Your task to perform on an android device: check out phone information Image 0: 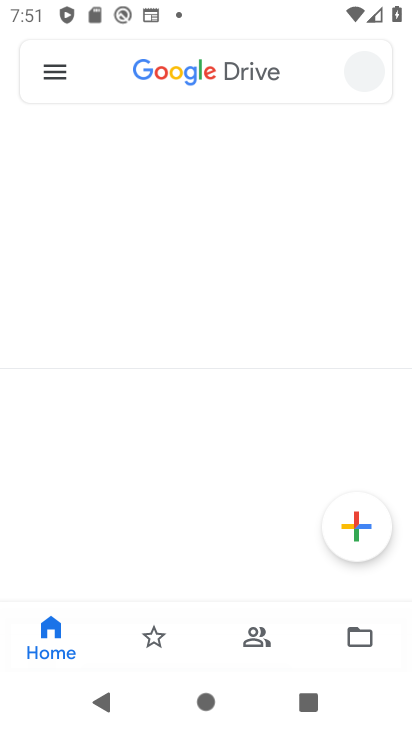
Step 0: click (248, 525)
Your task to perform on an android device: check out phone information Image 1: 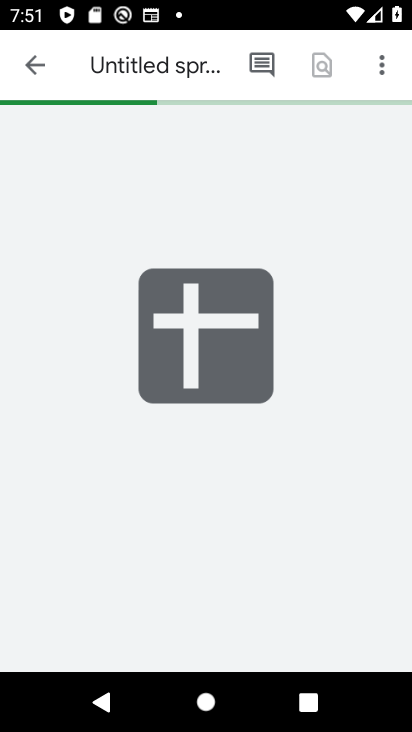
Step 1: press home button
Your task to perform on an android device: check out phone information Image 2: 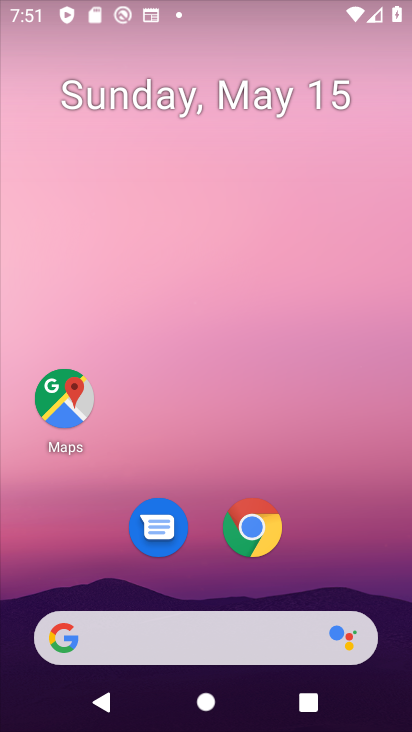
Step 2: drag from (193, 442) to (184, 233)
Your task to perform on an android device: check out phone information Image 3: 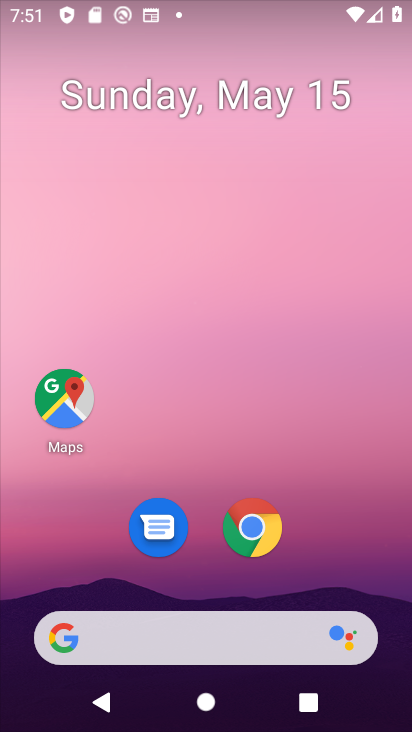
Step 3: drag from (236, 603) to (214, 211)
Your task to perform on an android device: check out phone information Image 4: 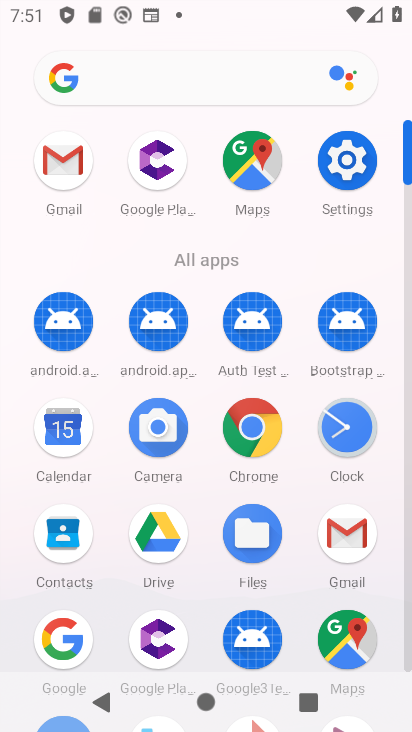
Step 4: click (334, 181)
Your task to perform on an android device: check out phone information Image 5: 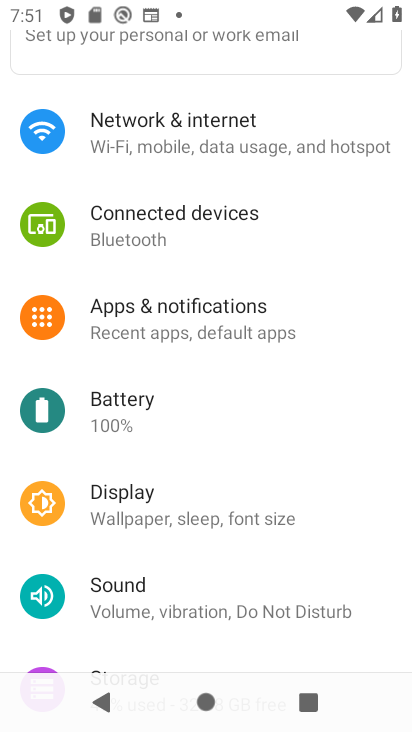
Step 5: drag from (200, 568) to (210, 106)
Your task to perform on an android device: check out phone information Image 6: 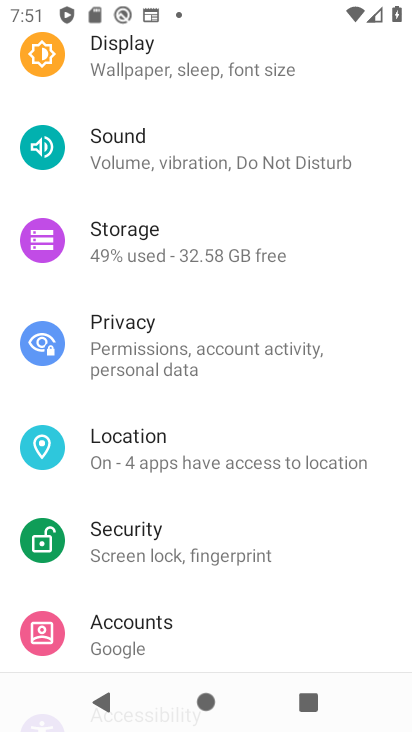
Step 6: drag from (203, 550) to (207, 196)
Your task to perform on an android device: check out phone information Image 7: 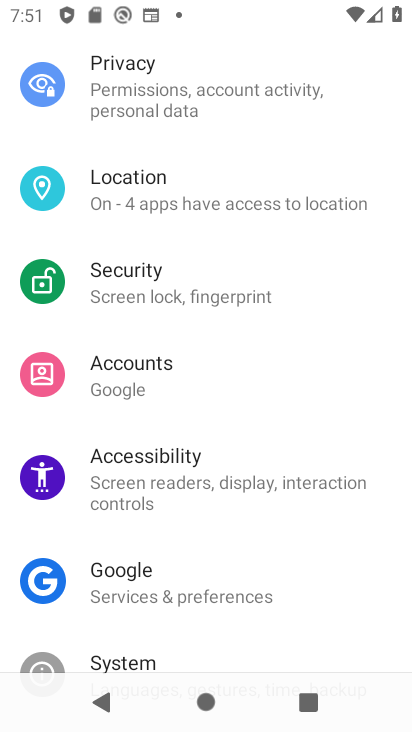
Step 7: drag from (213, 480) to (225, 184)
Your task to perform on an android device: check out phone information Image 8: 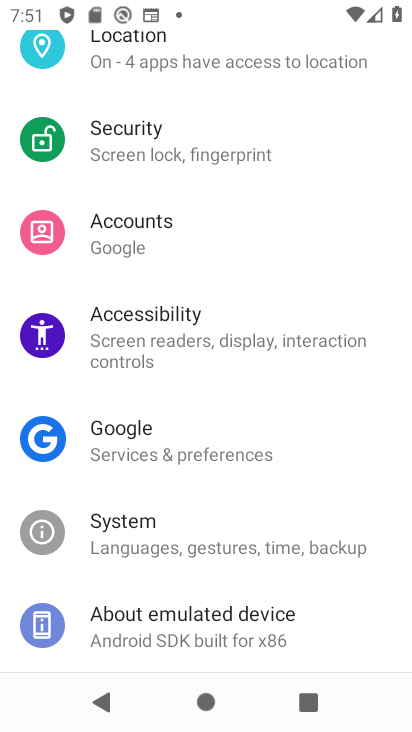
Step 8: drag from (199, 514) to (231, 225)
Your task to perform on an android device: check out phone information Image 9: 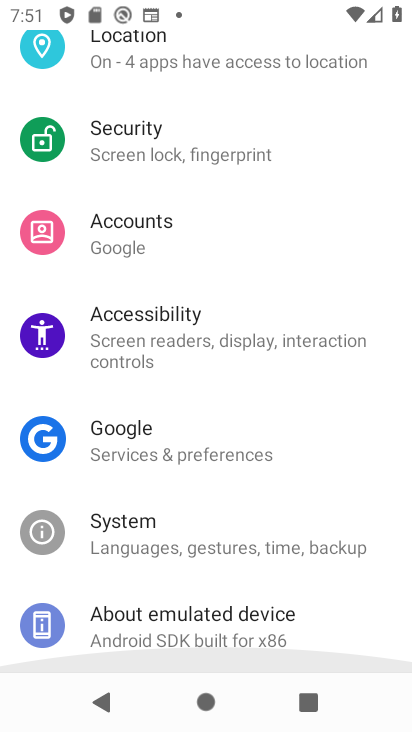
Step 9: drag from (214, 594) to (227, 251)
Your task to perform on an android device: check out phone information Image 10: 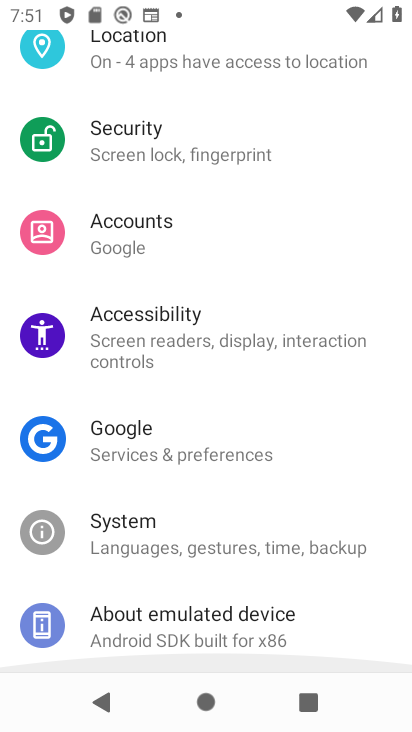
Step 10: click (173, 615)
Your task to perform on an android device: check out phone information Image 11: 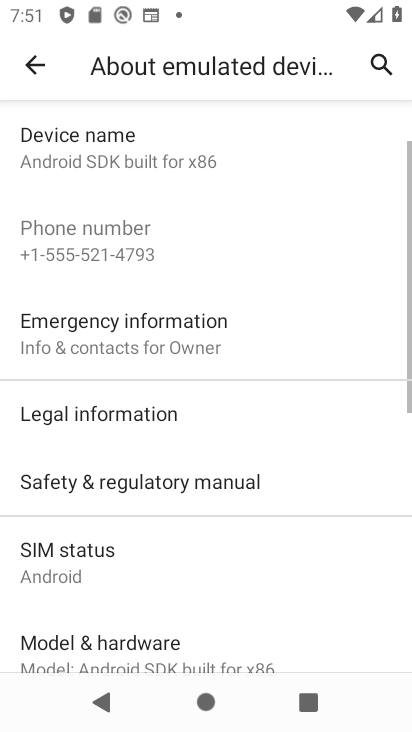
Step 11: task complete